Your task to perform on an android device: check google app version Image 0: 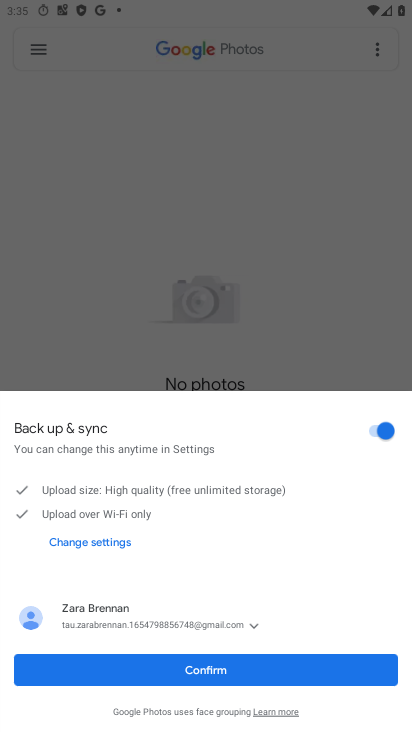
Step 0: press back button
Your task to perform on an android device: check google app version Image 1: 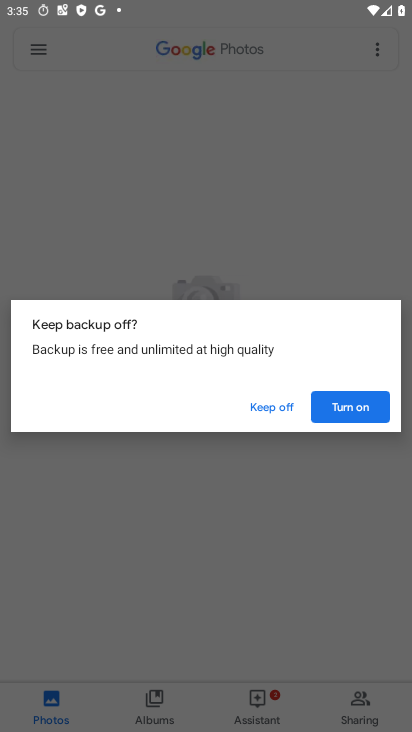
Step 1: press home button
Your task to perform on an android device: check google app version Image 2: 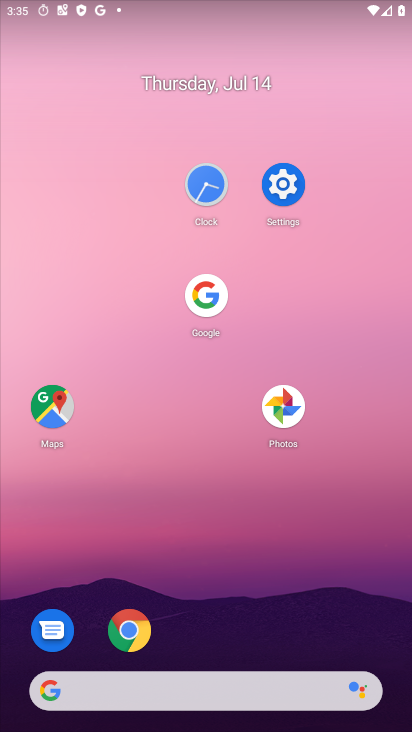
Step 2: click (199, 299)
Your task to perform on an android device: check google app version Image 3: 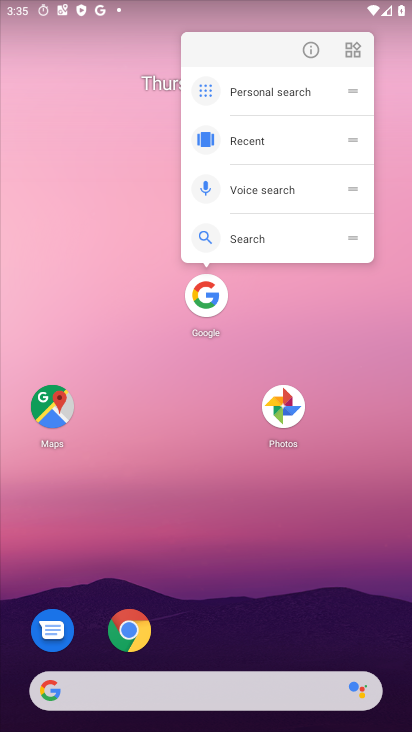
Step 3: click (316, 50)
Your task to perform on an android device: check google app version Image 4: 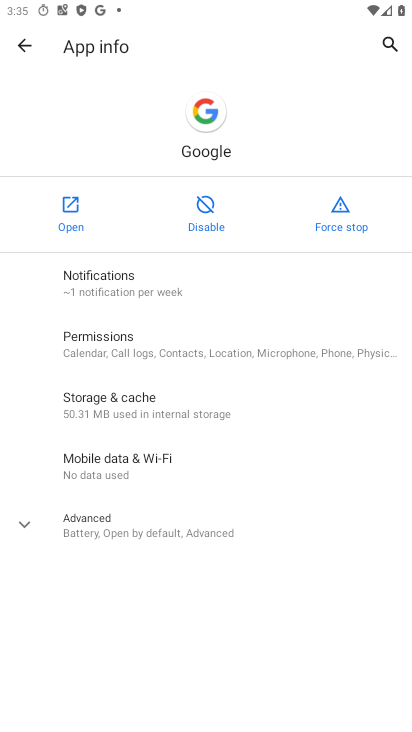
Step 4: click (196, 515)
Your task to perform on an android device: check google app version Image 5: 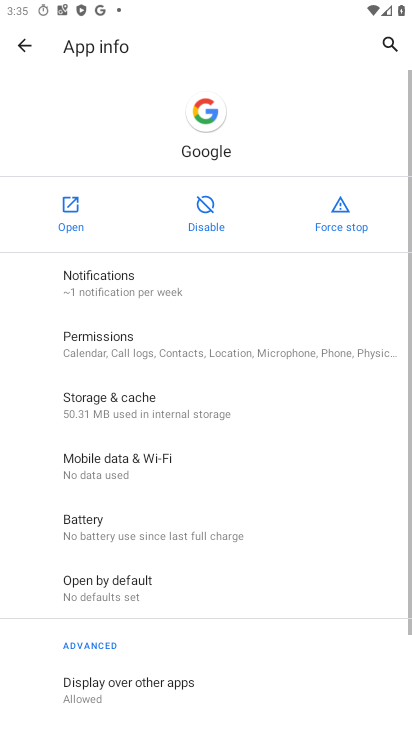
Step 5: task complete